Your task to perform on an android device: turn on wifi Image 0: 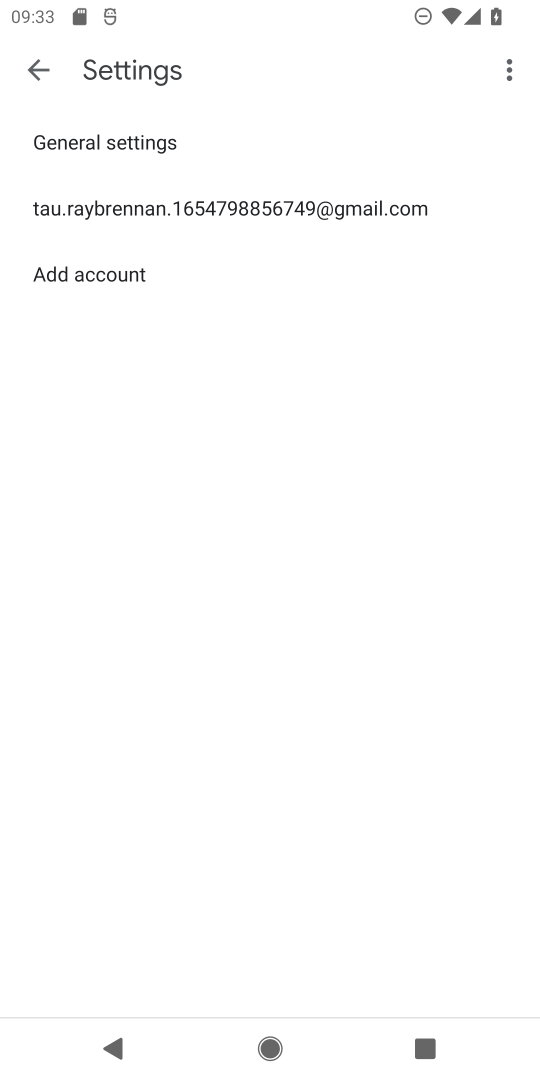
Step 0: press home button
Your task to perform on an android device: turn on wifi Image 1: 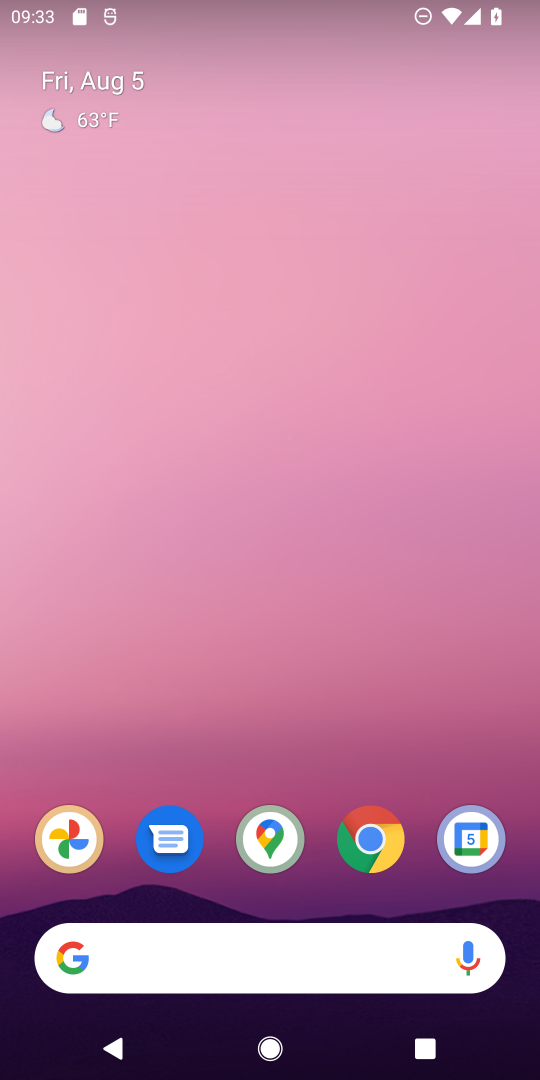
Step 1: drag from (338, 908) to (312, 69)
Your task to perform on an android device: turn on wifi Image 2: 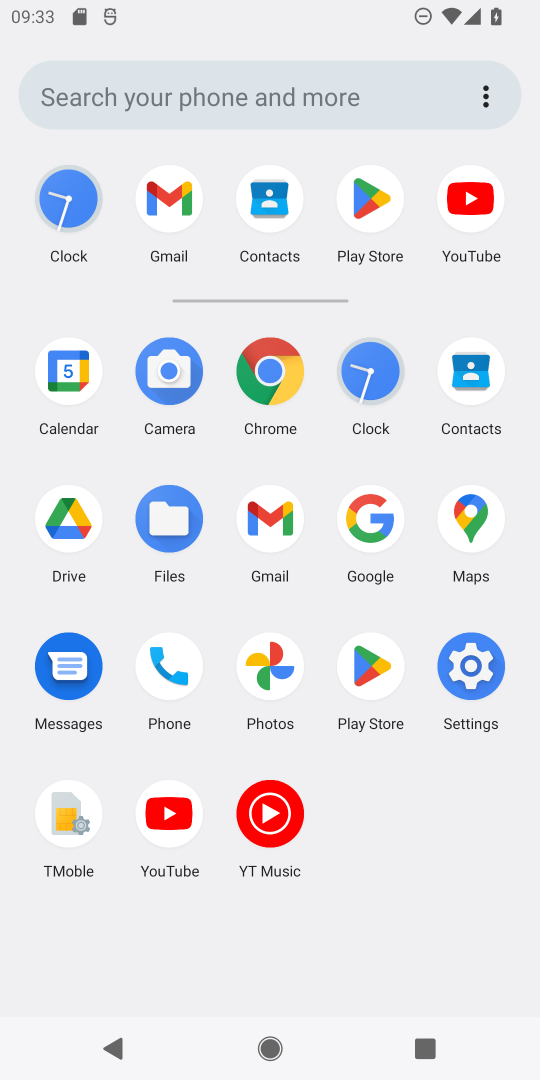
Step 2: click (459, 670)
Your task to perform on an android device: turn on wifi Image 3: 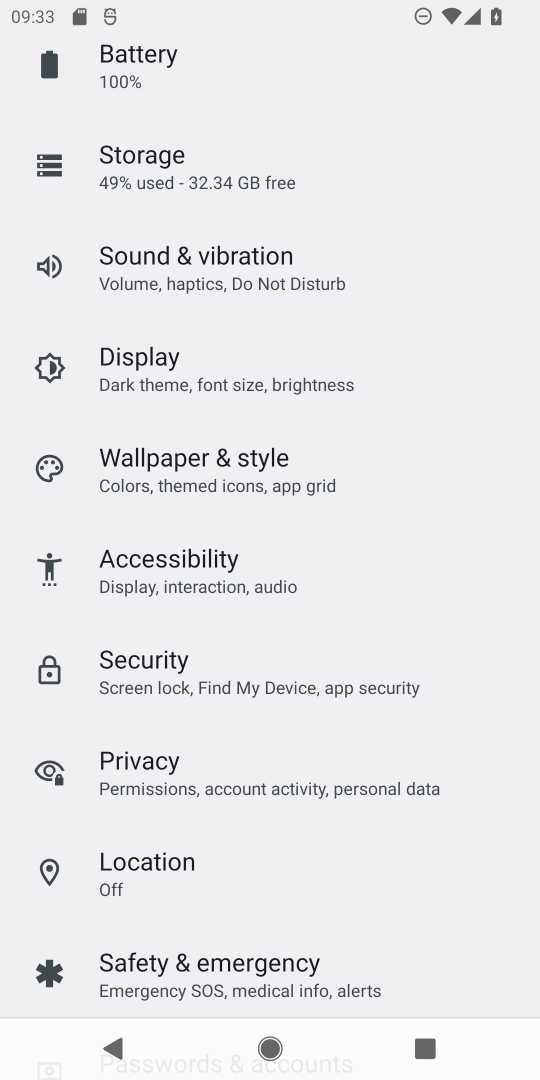
Step 3: drag from (254, 183) to (241, 690)
Your task to perform on an android device: turn on wifi Image 4: 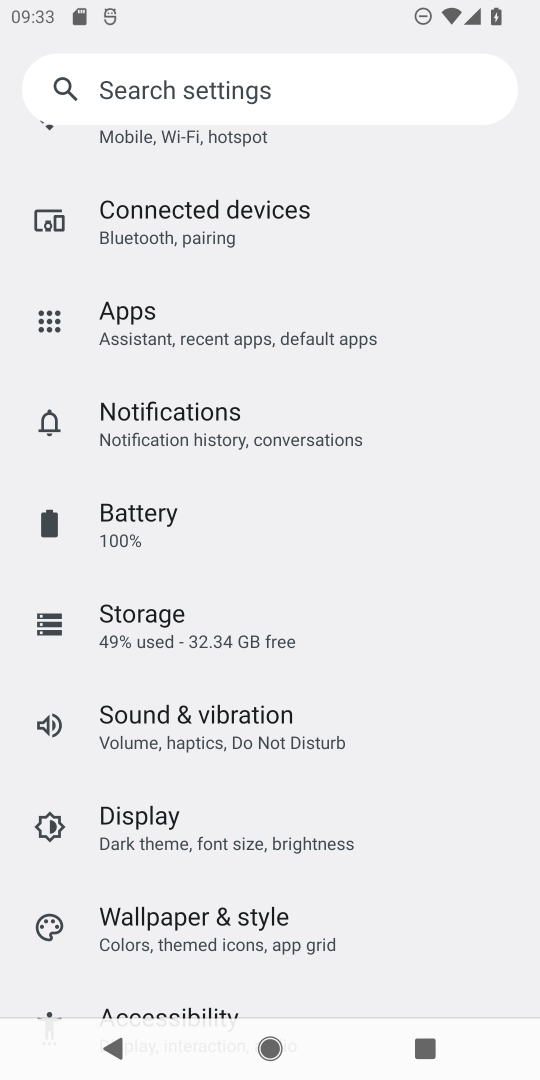
Step 4: drag from (245, 238) to (259, 855)
Your task to perform on an android device: turn on wifi Image 5: 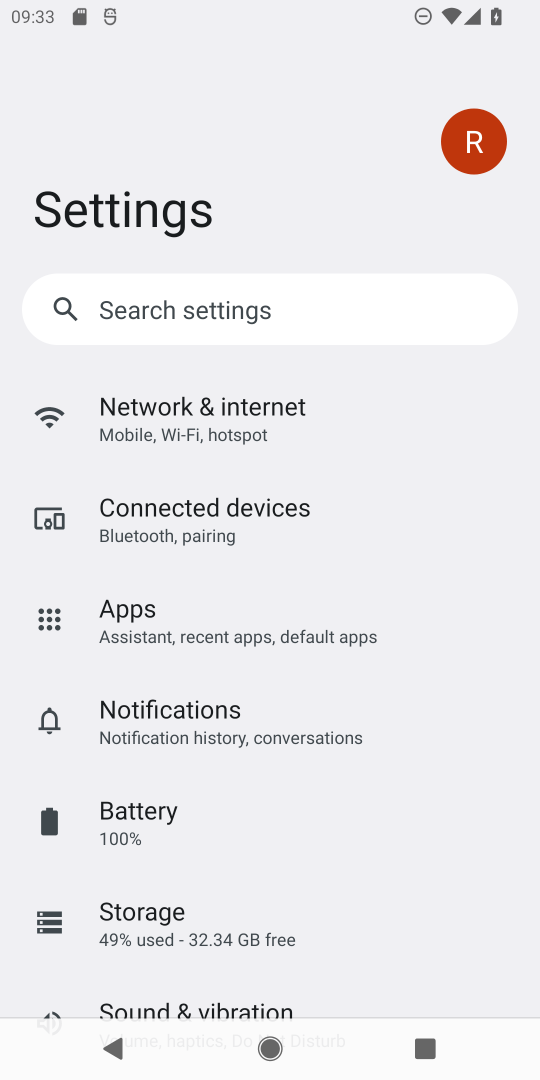
Step 5: click (160, 420)
Your task to perform on an android device: turn on wifi Image 6: 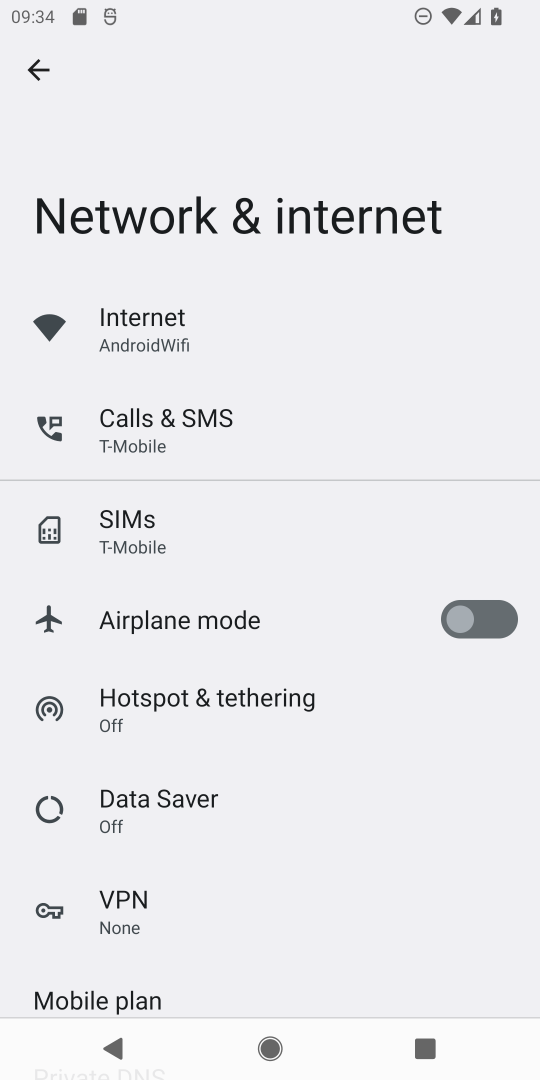
Step 6: click (143, 336)
Your task to perform on an android device: turn on wifi Image 7: 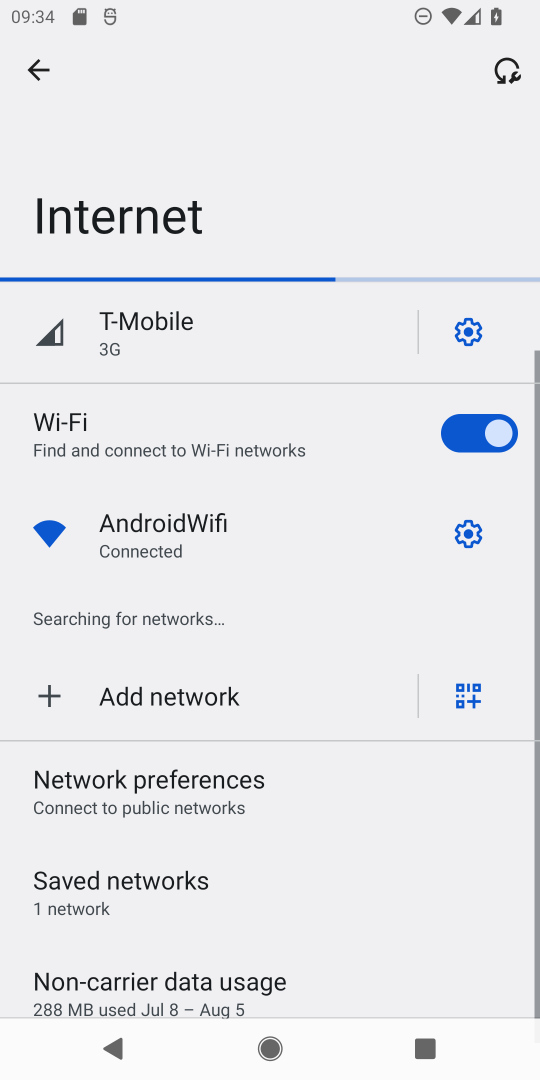
Step 7: task complete